Your task to perform on an android device: toggle javascript in the chrome app Image 0: 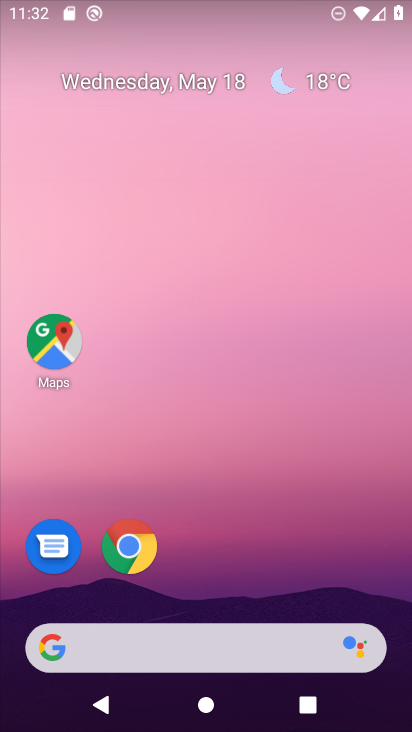
Step 0: click (125, 548)
Your task to perform on an android device: toggle javascript in the chrome app Image 1: 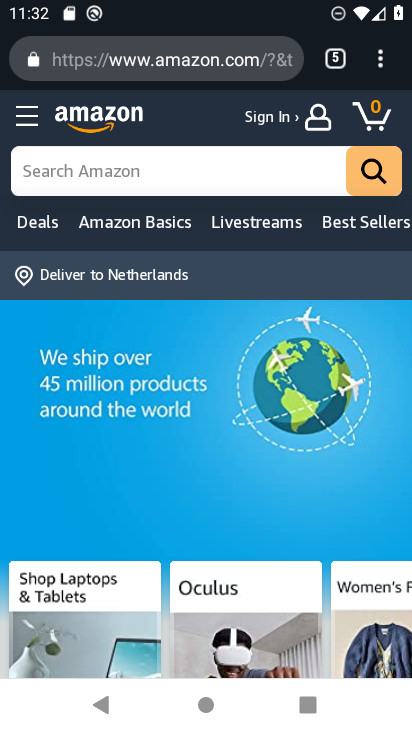
Step 1: click (385, 71)
Your task to perform on an android device: toggle javascript in the chrome app Image 2: 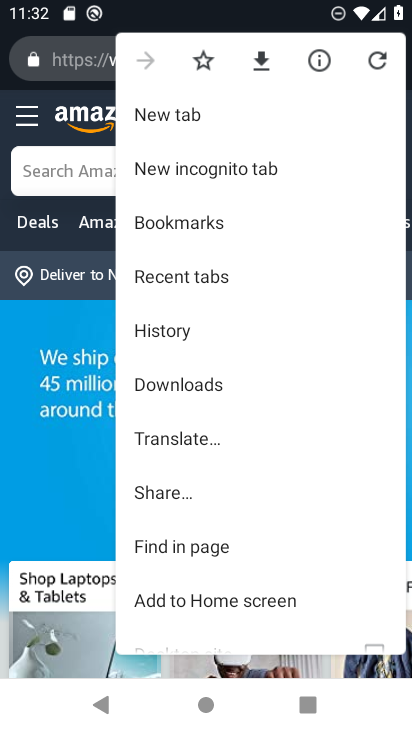
Step 2: drag from (198, 561) to (199, 208)
Your task to perform on an android device: toggle javascript in the chrome app Image 3: 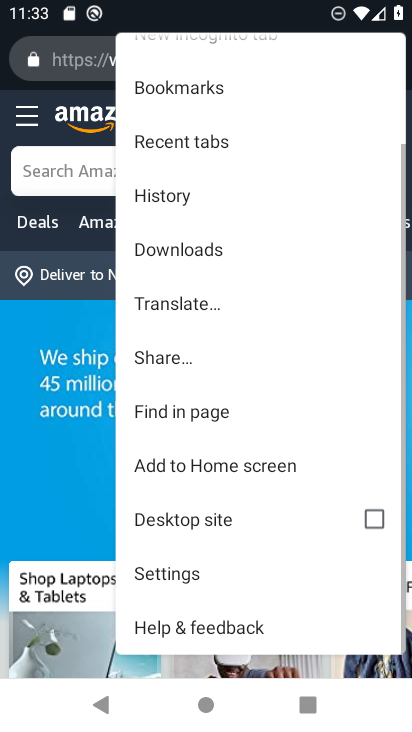
Step 3: click (186, 567)
Your task to perform on an android device: toggle javascript in the chrome app Image 4: 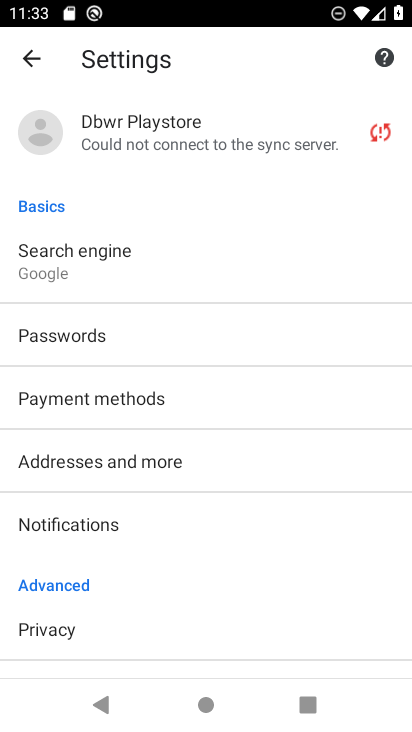
Step 4: drag from (159, 610) to (143, 172)
Your task to perform on an android device: toggle javascript in the chrome app Image 5: 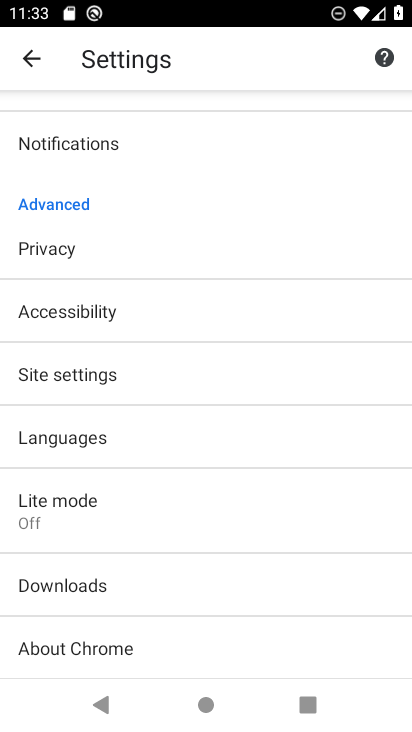
Step 5: click (63, 374)
Your task to perform on an android device: toggle javascript in the chrome app Image 6: 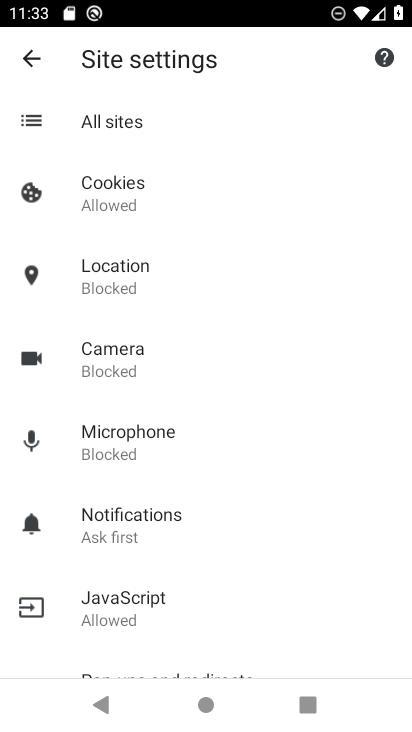
Step 6: click (145, 598)
Your task to perform on an android device: toggle javascript in the chrome app Image 7: 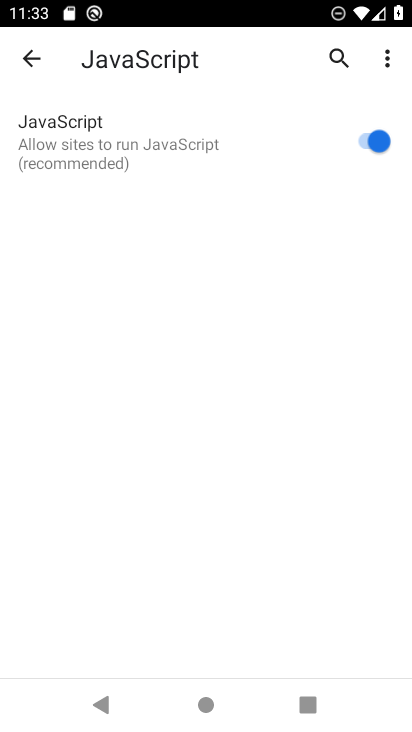
Step 7: click (364, 140)
Your task to perform on an android device: toggle javascript in the chrome app Image 8: 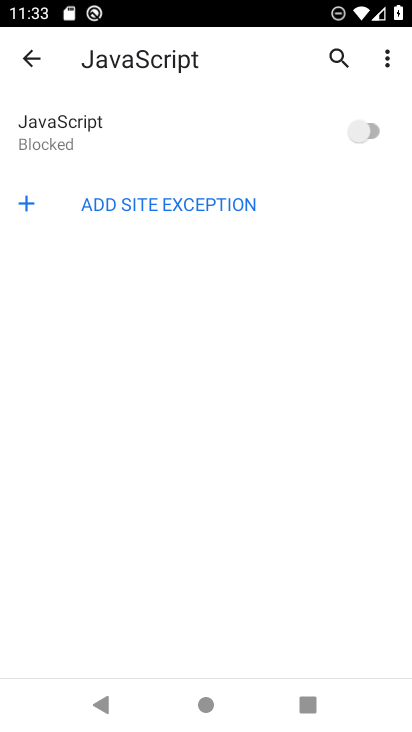
Step 8: task complete